Your task to perform on an android device: turn smart compose on in the gmail app Image 0: 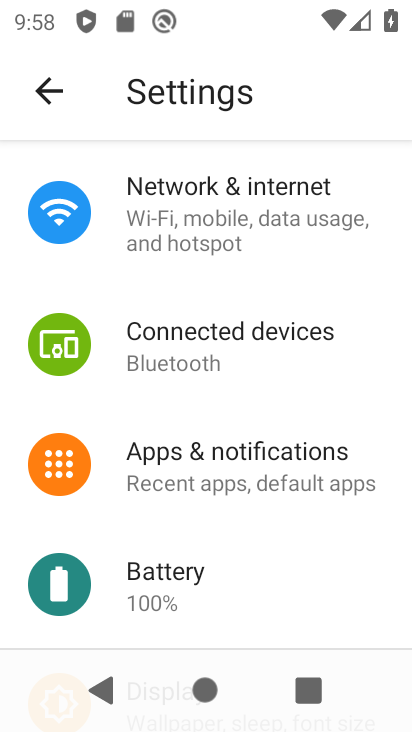
Step 0: drag from (191, 602) to (187, 17)
Your task to perform on an android device: turn smart compose on in the gmail app Image 1: 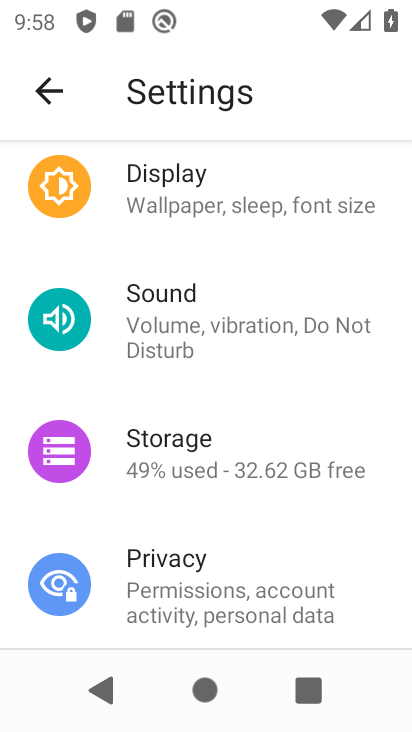
Step 1: press home button
Your task to perform on an android device: turn smart compose on in the gmail app Image 2: 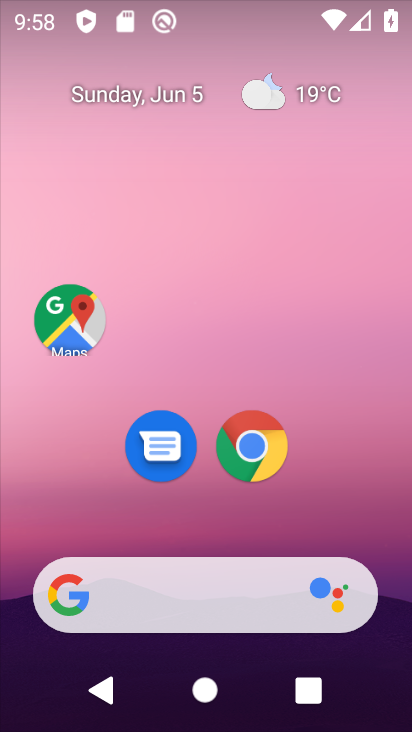
Step 2: drag from (211, 521) to (250, 7)
Your task to perform on an android device: turn smart compose on in the gmail app Image 3: 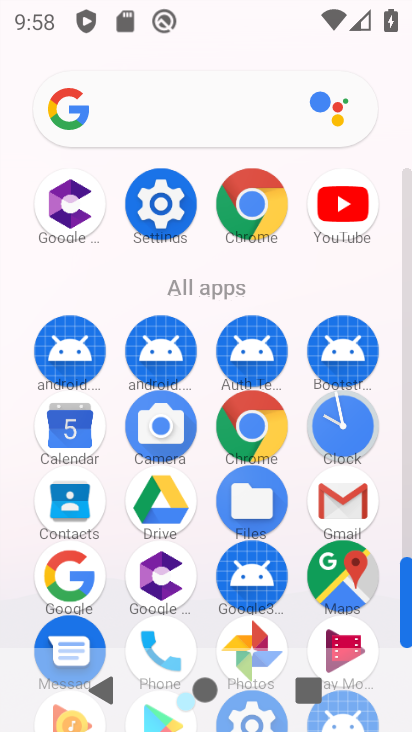
Step 3: click (347, 509)
Your task to perform on an android device: turn smart compose on in the gmail app Image 4: 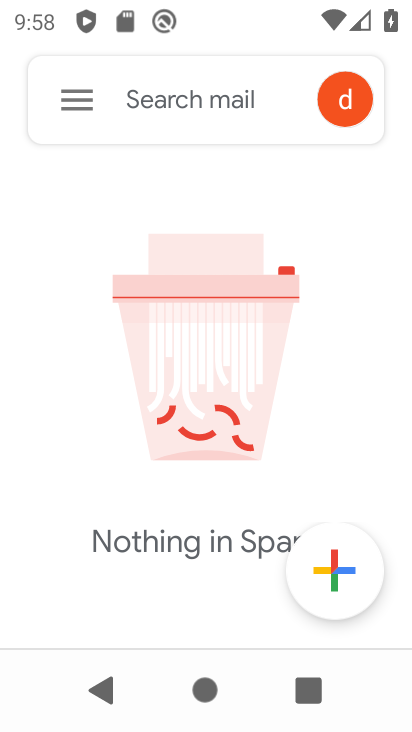
Step 4: click (87, 96)
Your task to perform on an android device: turn smart compose on in the gmail app Image 5: 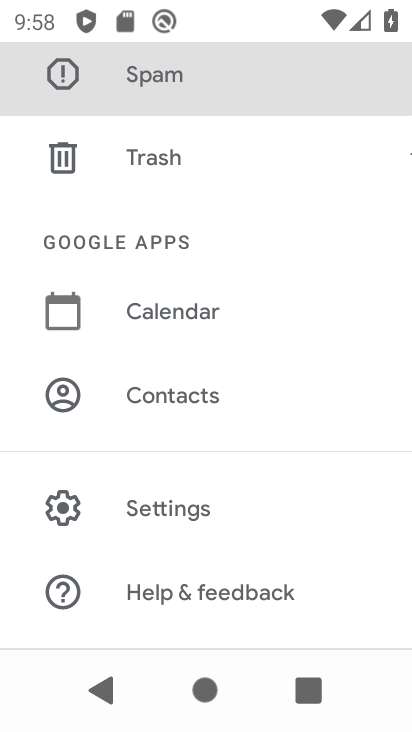
Step 5: click (185, 503)
Your task to perform on an android device: turn smart compose on in the gmail app Image 6: 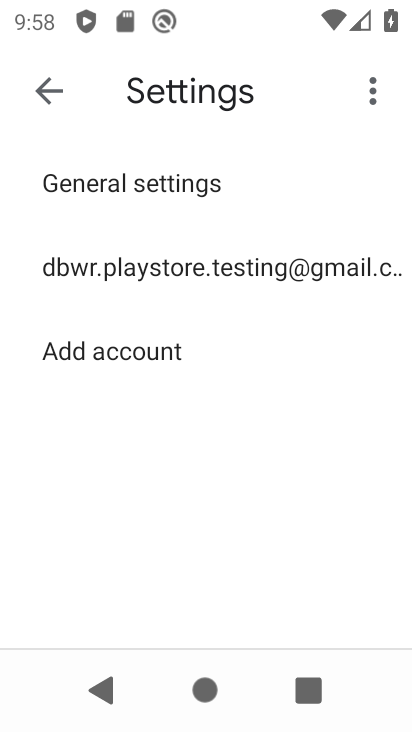
Step 6: click (236, 256)
Your task to perform on an android device: turn smart compose on in the gmail app Image 7: 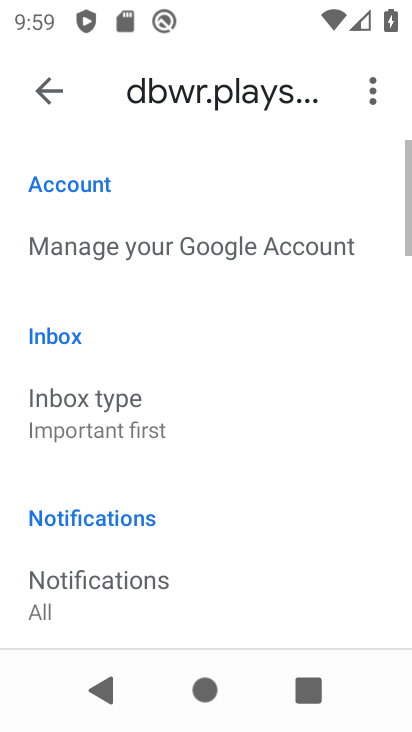
Step 7: task complete